Your task to perform on an android device: Turn on the flashlight Image 0: 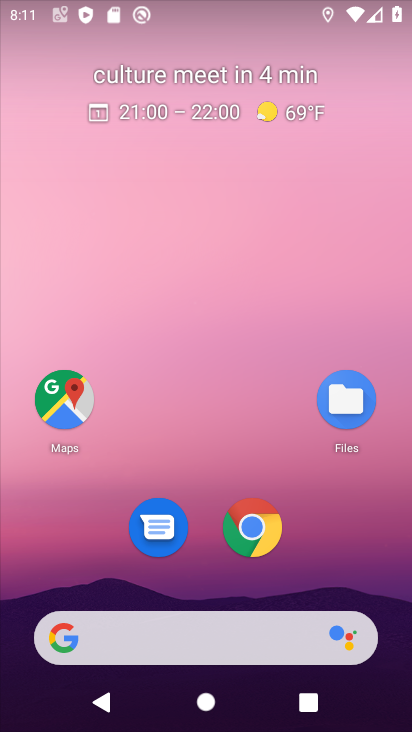
Step 0: drag from (227, 573) to (248, 0)
Your task to perform on an android device: Turn on the flashlight Image 1: 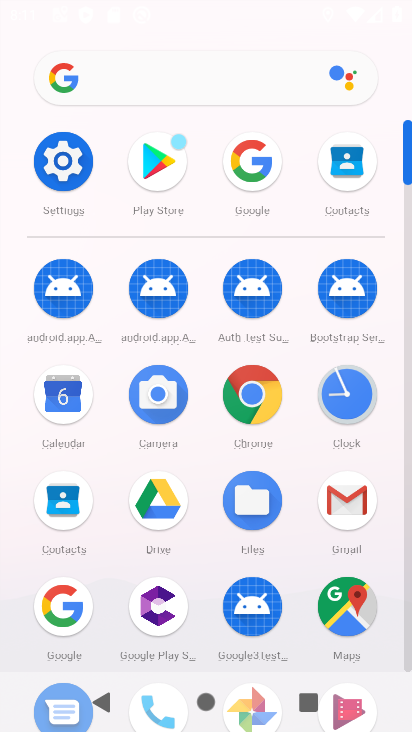
Step 1: click (64, 162)
Your task to perform on an android device: Turn on the flashlight Image 2: 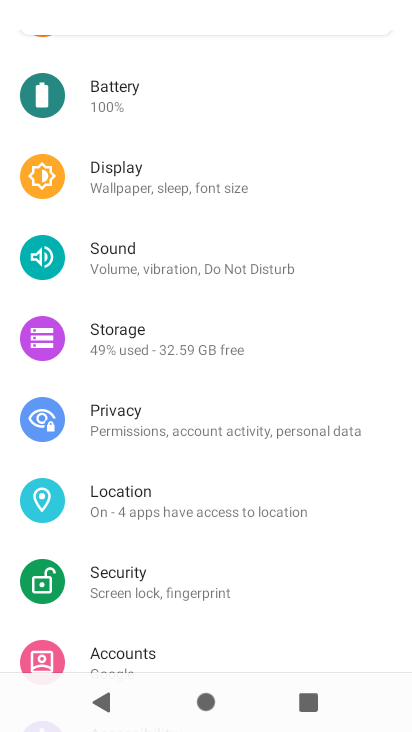
Step 2: drag from (185, 106) to (212, 319)
Your task to perform on an android device: Turn on the flashlight Image 3: 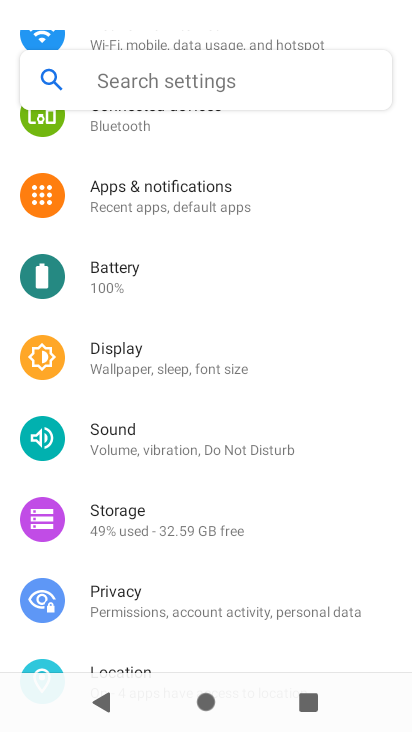
Step 3: click (179, 82)
Your task to perform on an android device: Turn on the flashlight Image 4: 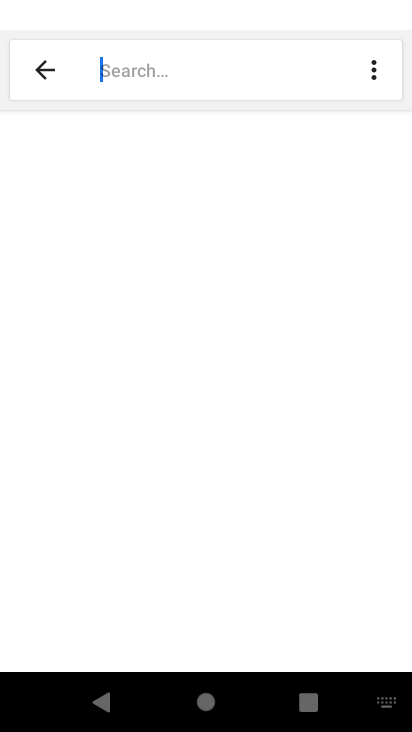
Step 4: type "flash"
Your task to perform on an android device: Turn on the flashlight Image 5: 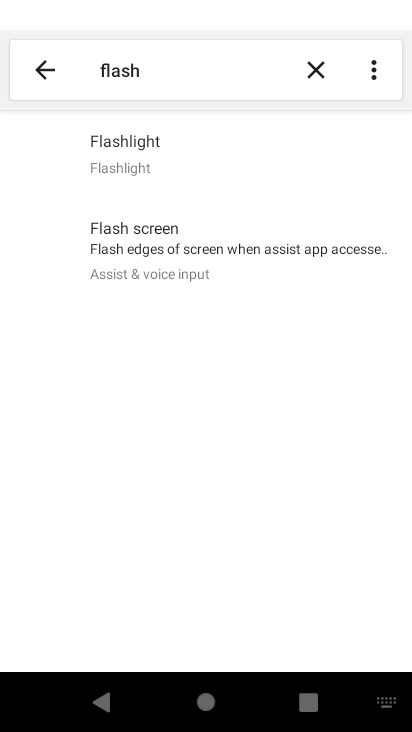
Step 5: task complete